Your task to perform on an android device: make emails show in primary in the gmail app Image 0: 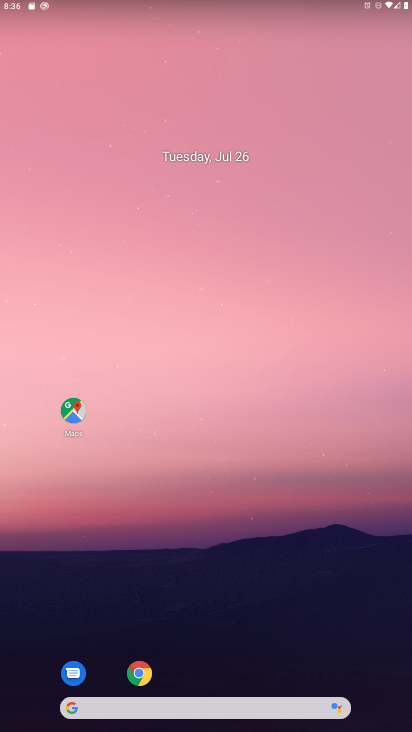
Step 0: drag from (311, 557) to (143, 6)
Your task to perform on an android device: make emails show in primary in the gmail app Image 1: 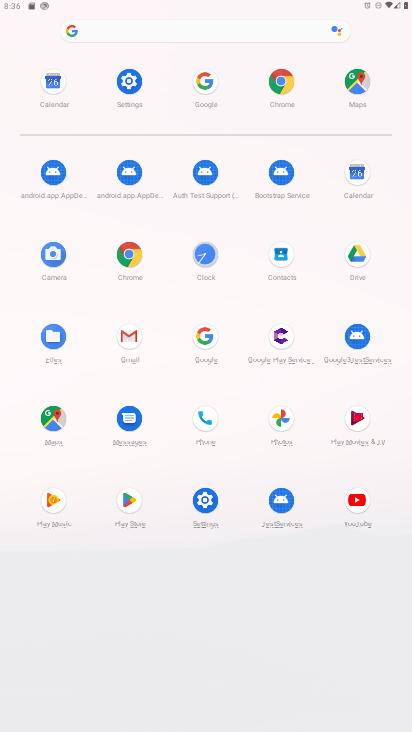
Step 1: click (120, 339)
Your task to perform on an android device: make emails show in primary in the gmail app Image 2: 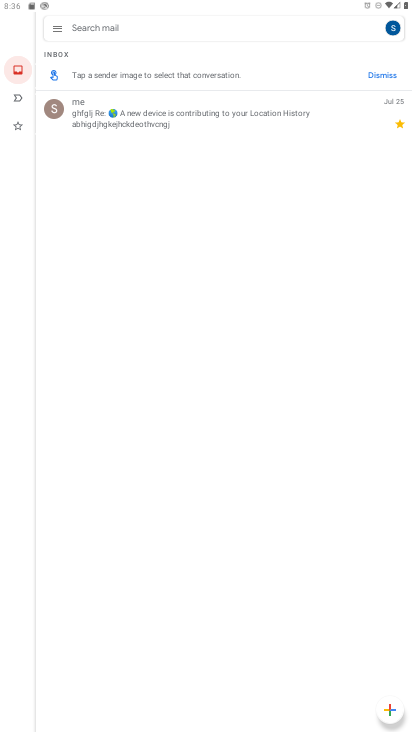
Step 2: task complete